Your task to perform on an android device: delete browsing data in the chrome app Image 0: 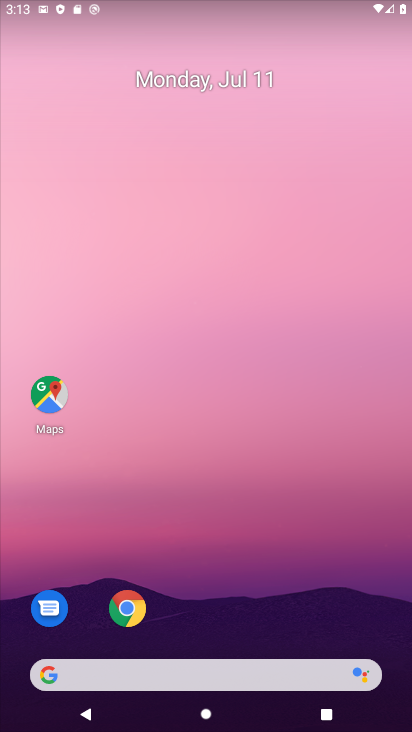
Step 0: drag from (230, 7) to (232, 535)
Your task to perform on an android device: delete browsing data in the chrome app Image 1: 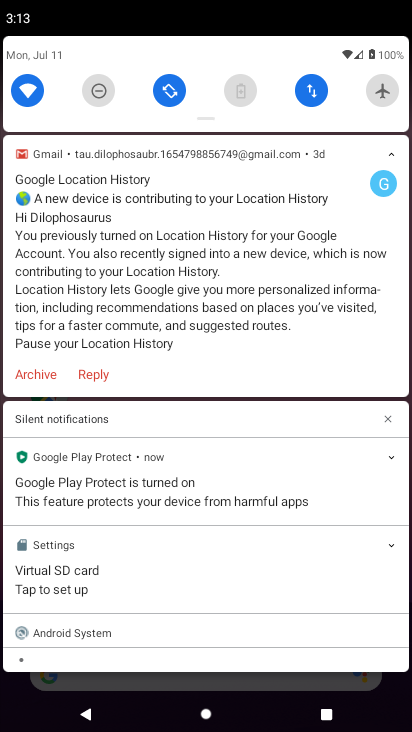
Step 1: click (17, 90)
Your task to perform on an android device: delete browsing data in the chrome app Image 2: 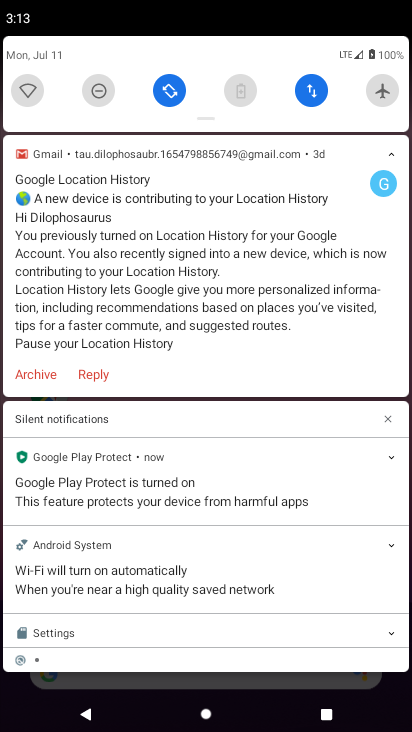
Step 2: task complete